Your task to perform on an android device: Clear the shopping cart on costco. Search for duracell triple a on costco, select the first entry, and add it to the cart. Image 0: 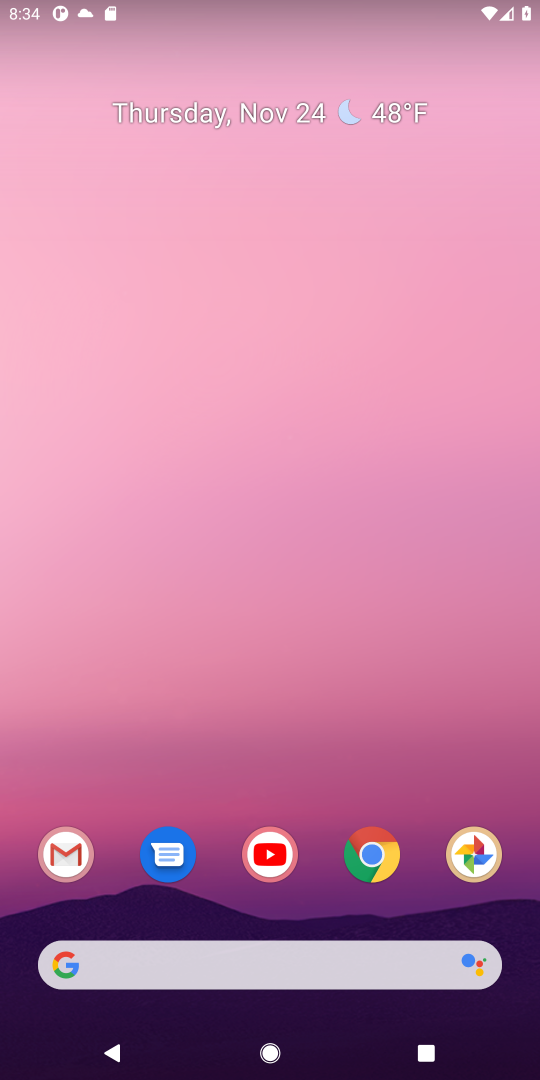
Step 0: click (369, 856)
Your task to perform on an android device: Clear the shopping cart on costco. Search for duracell triple a on costco, select the first entry, and add it to the cart. Image 1: 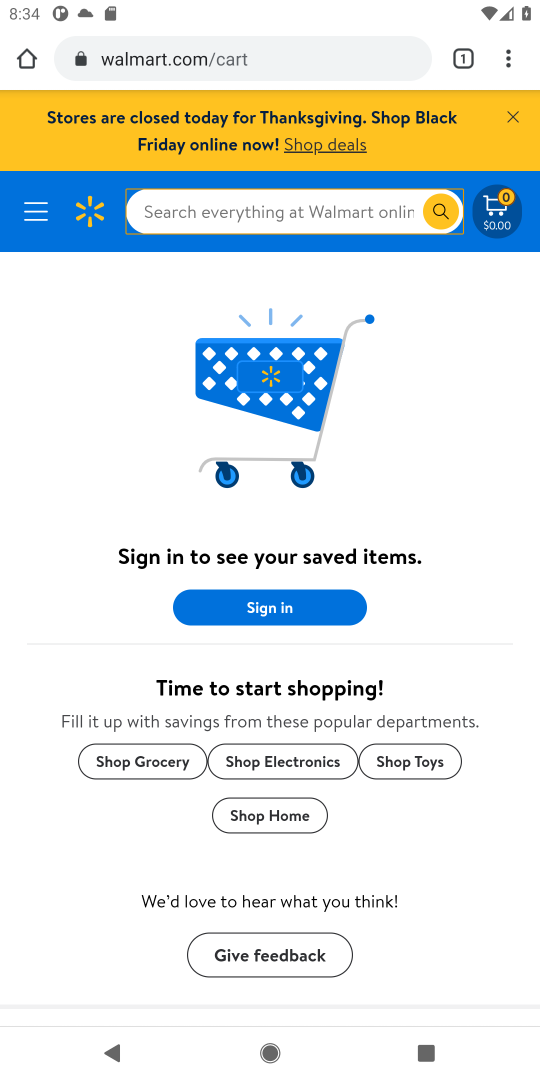
Step 1: click (210, 56)
Your task to perform on an android device: Clear the shopping cart on costco. Search for duracell triple a on costco, select the first entry, and add it to the cart. Image 2: 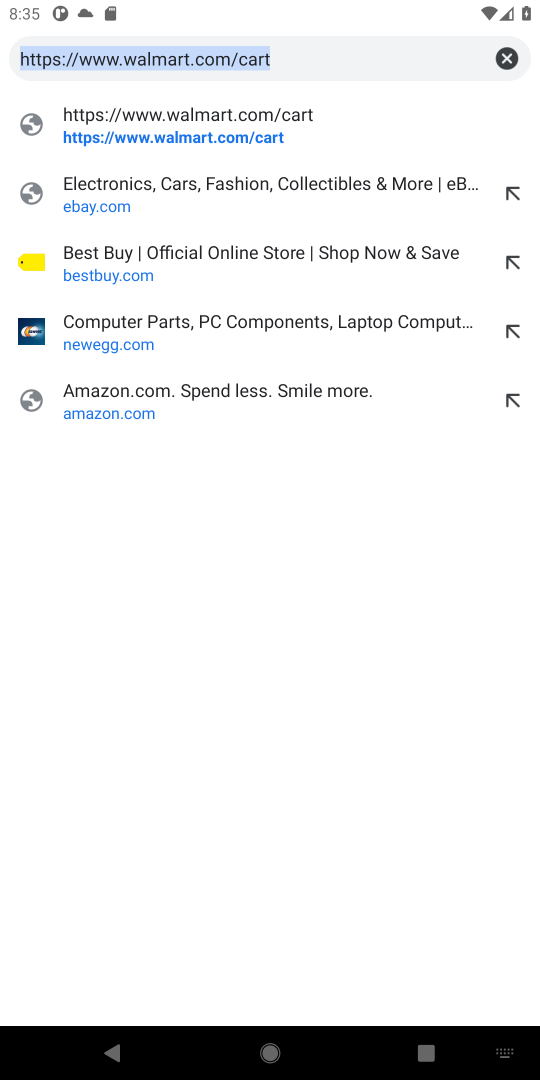
Step 2: type "costco.com"
Your task to perform on an android device: Clear the shopping cart on costco. Search for duracell triple a on costco, select the first entry, and add it to the cart. Image 3: 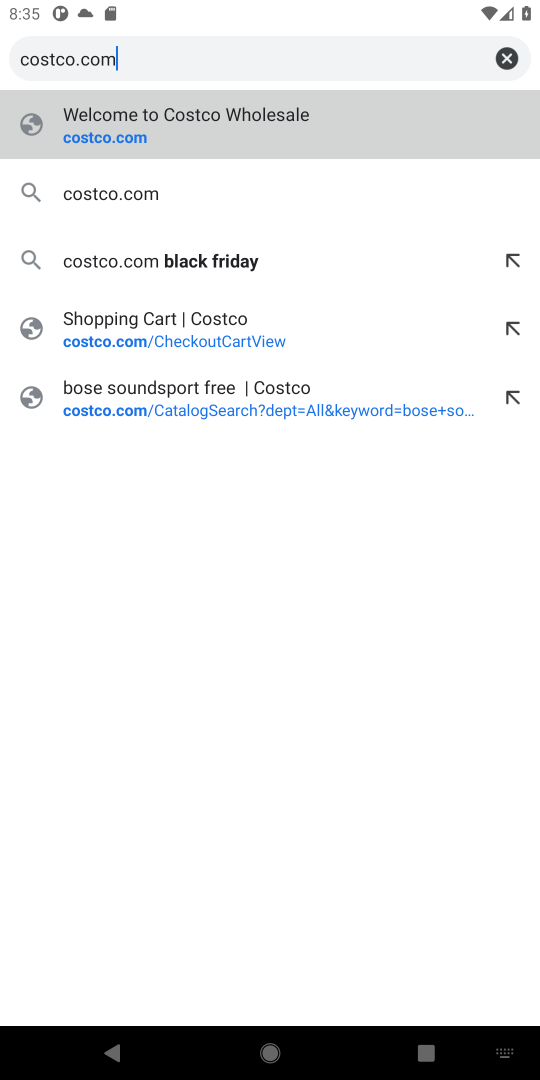
Step 3: click (118, 138)
Your task to perform on an android device: Clear the shopping cart on costco. Search for duracell triple a on costco, select the first entry, and add it to the cart. Image 4: 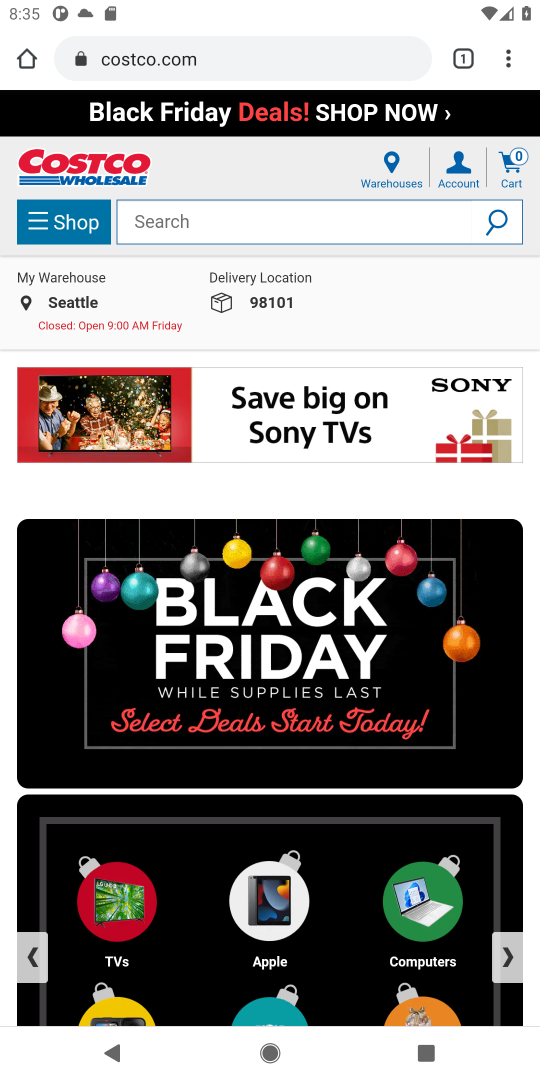
Step 4: click (138, 217)
Your task to perform on an android device: Clear the shopping cart on costco. Search for duracell triple a on costco, select the first entry, and add it to the cart. Image 5: 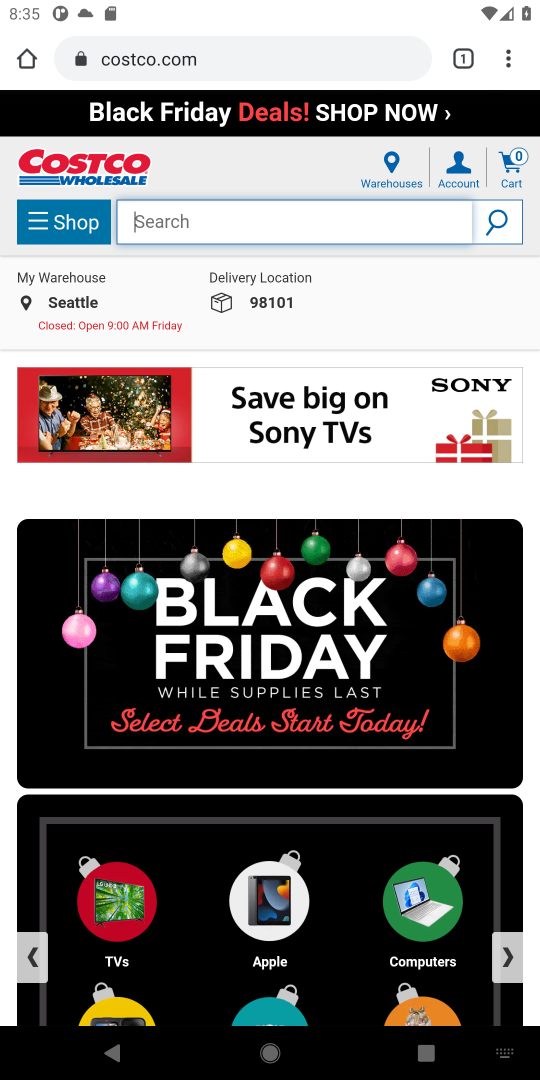
Step 5: type "duracell triple a "
Your task to perform on an android device: Clear the shopping cart on costco. Search for duracell triple a on costco, select the first entry, and add it to the cart. Image 6: 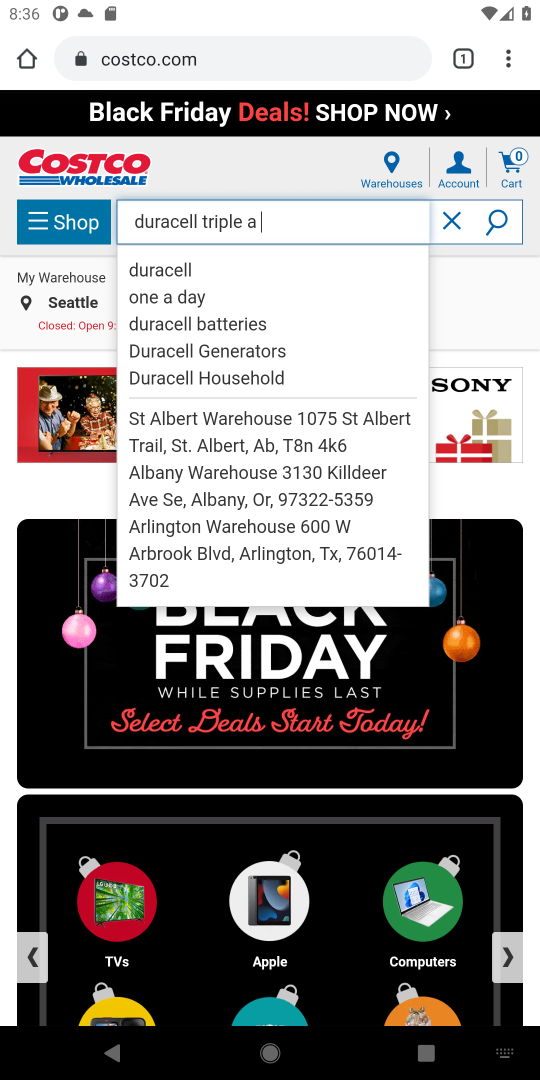
Step 6: click (494, 223)
Your task to perform on an android device: Clear the shopping cart on costco. Search for duracell triple a on costco, select the first entry, and add it to the cart. Image 7: 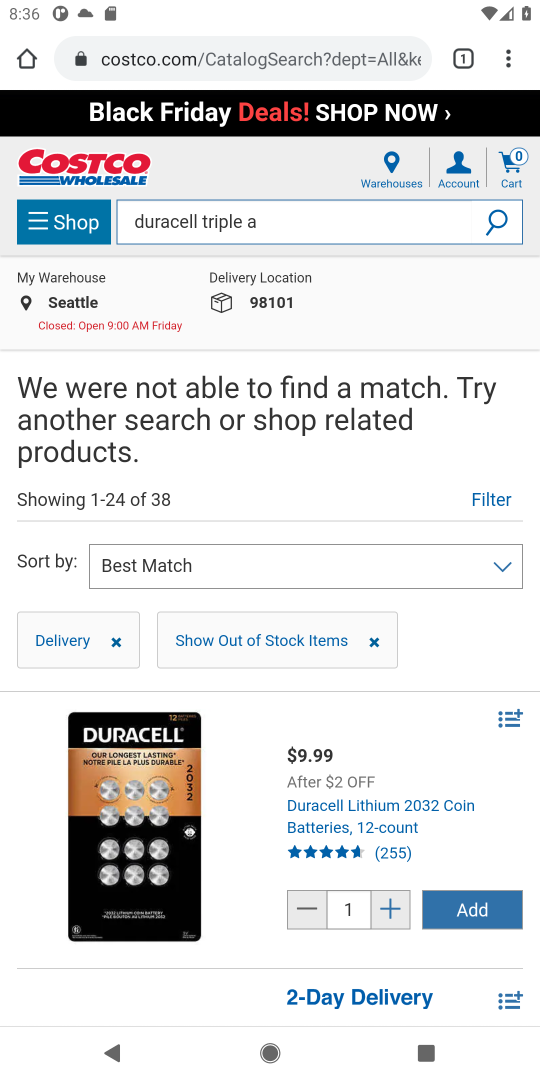
Step 7: task complete